Your task to perform on an android device: Do I have any events this weekend? Image 0: 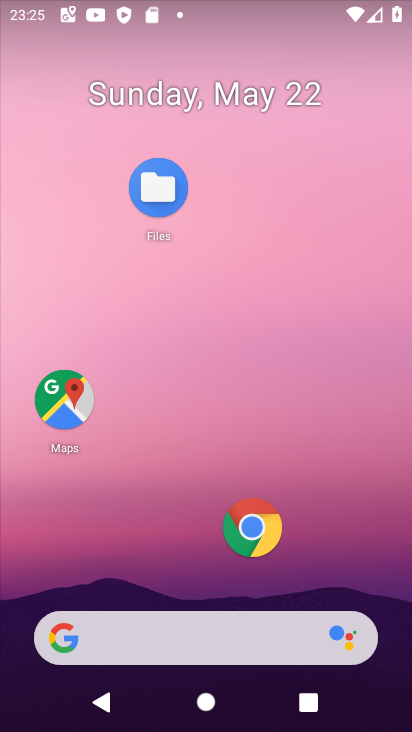
Step 0: drag from (331, 514) to (331, 0)
Your task to perform on an android device: Do I have any events this weekend? Image 1: 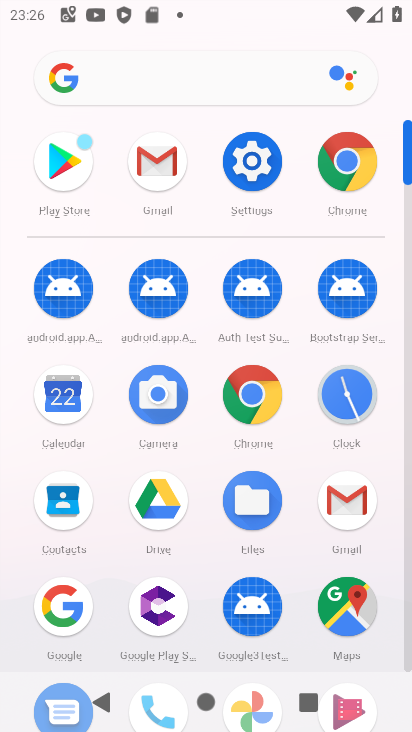
Step 1: click (72, 407)
Your task to perform on an android device: Do I have any events this weekend? Image 2: 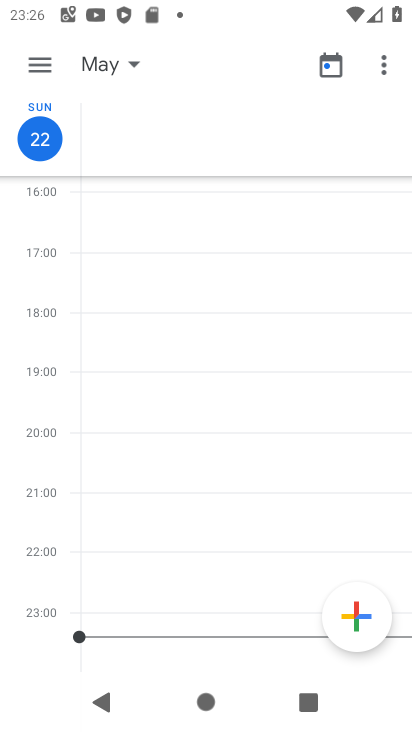
Step 2: click (38, 58)
Your task to perform on an android device: Do I have any events this weekend? Image 3: 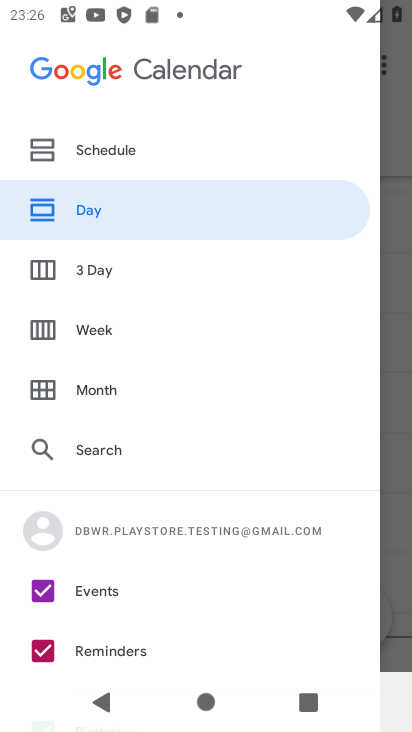
Step 3: click (101, 327)
Your task to perform on an android device: Do I have any events this weekend? Image 4: 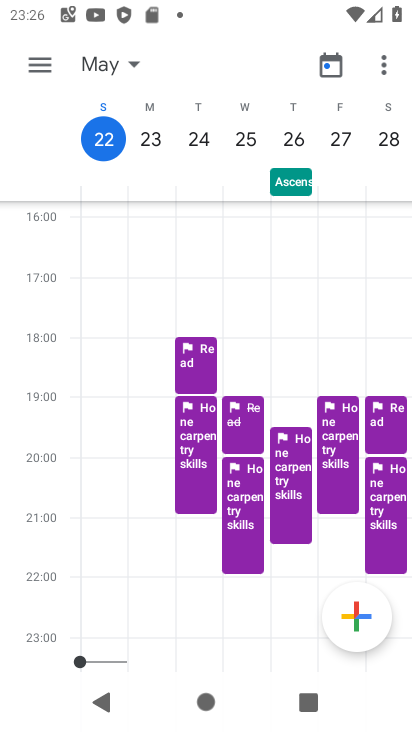
Step 4: task complete